Your task to perform on an android device: toggle sleep mode Image 0: 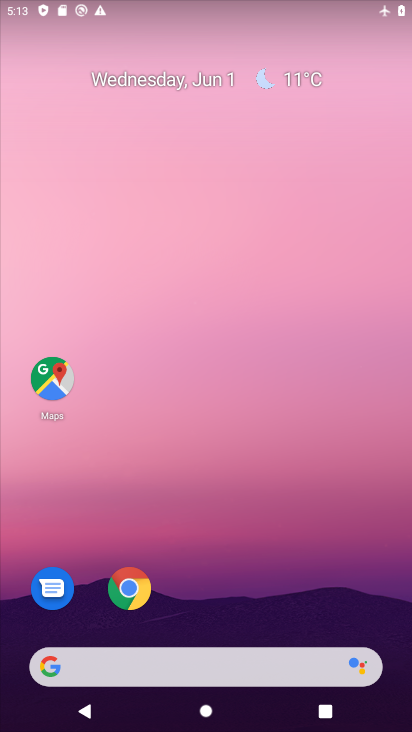
Step 0: drag from (169, 622) to (263, 77)
Your task to perform on an android device: toggle sleep mode Image 1: 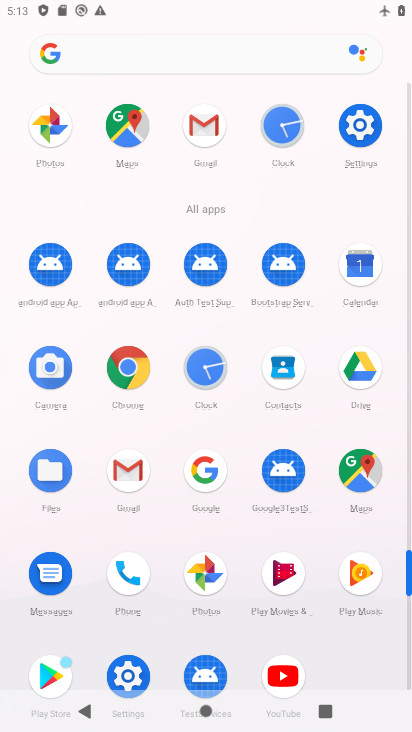
Step 1: drag from (180, 620) to (220, 374)
Your task to perform on an android device: toggle sleep mode Image 2: 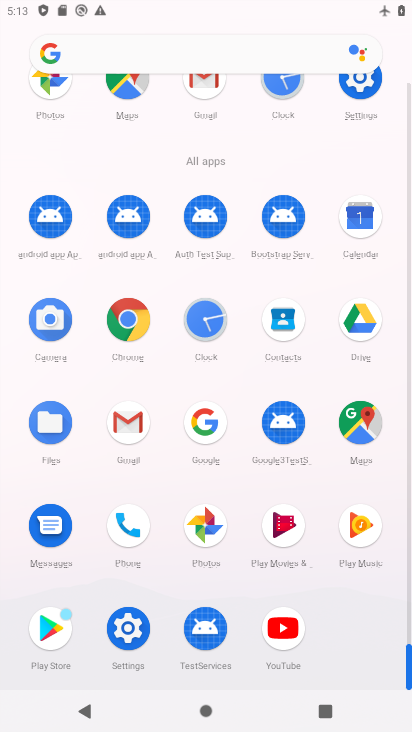
Step 2: click (138, 657)
Your task to perform on an android device: toggle sleep mode Image 3: 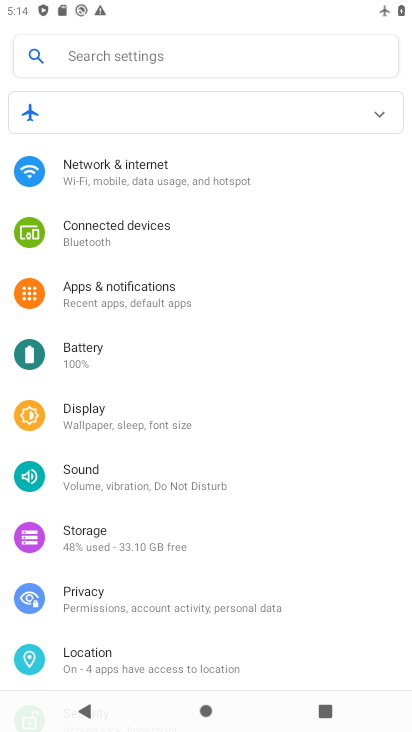
Step 3: click (154, 431)
Your task to perform on an android device: toggle sleep mode Image 4: 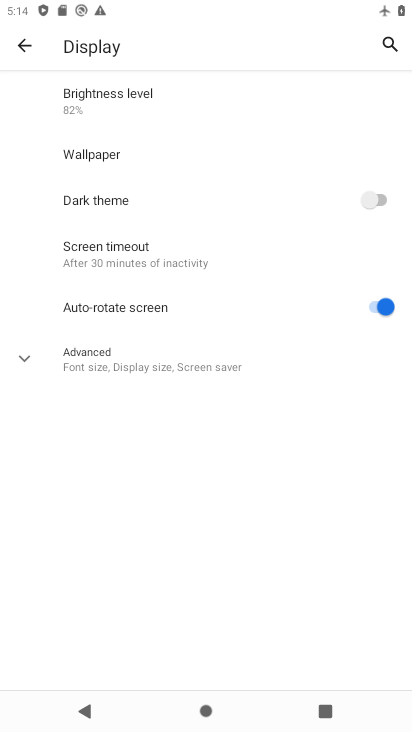
Step 4: click (197, 335)
Your task to perform on an android device: toggle sleep mode Image 5: 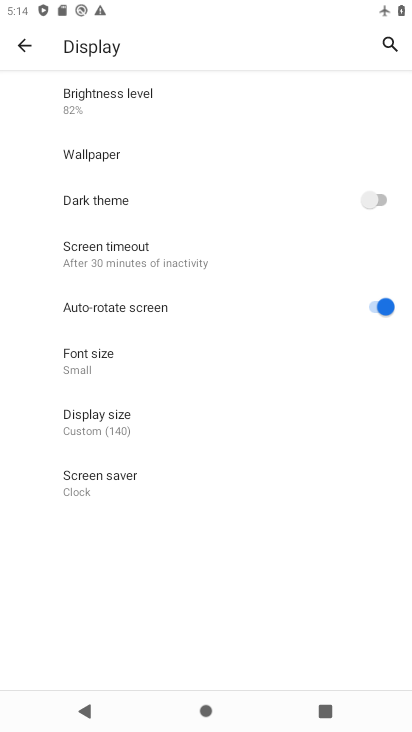
Step 5: task complete